Your task to perform on an android device: Open Chrome and go to settings Image 0: 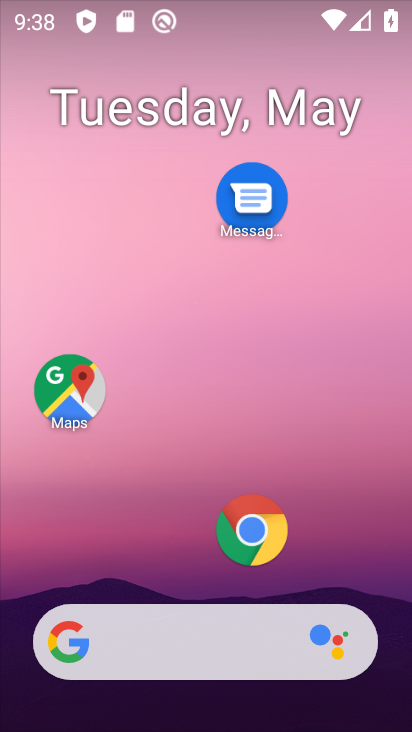
Step 0: click (252, 532)
Your task to perform on an android device: Open Chrome and go to settings Image 1: 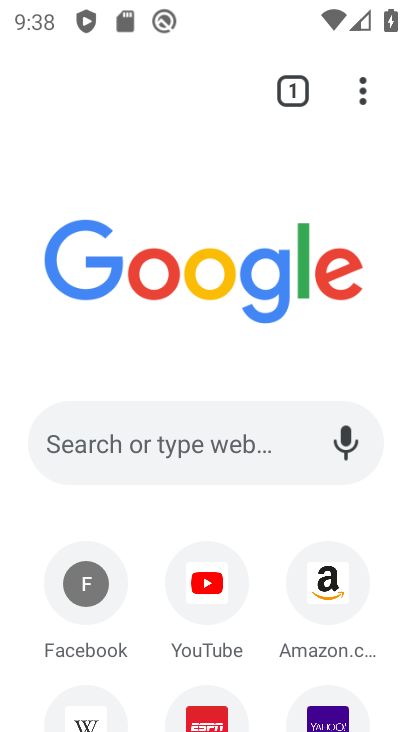
Step 1: click (359, 85)
Your task to perform on an android device: Open Chrome and go to settings Image 2: 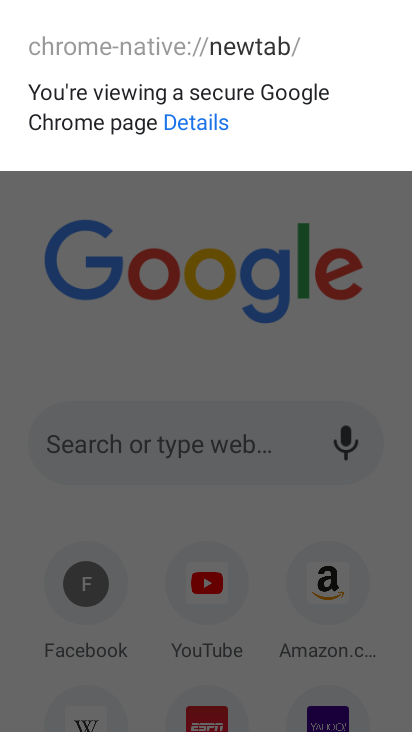
Step 2: click (332, 212)
Your task to perform on an android device: Open Chrome and go to settings Image 3: 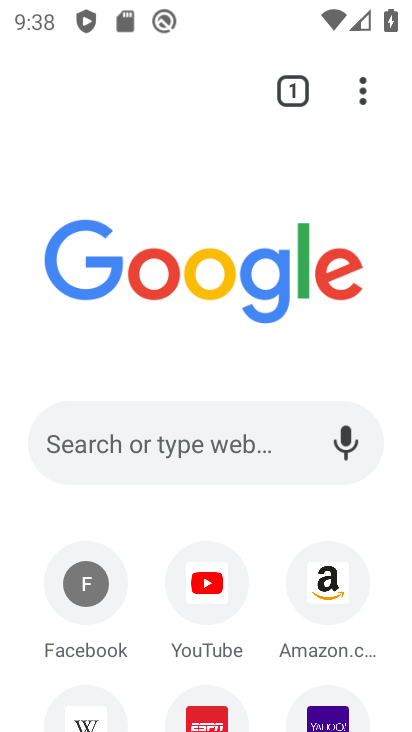
Step 3: click (356, 91)
Your task to perform on an android device: Open Chrome and go to settings Image 4: 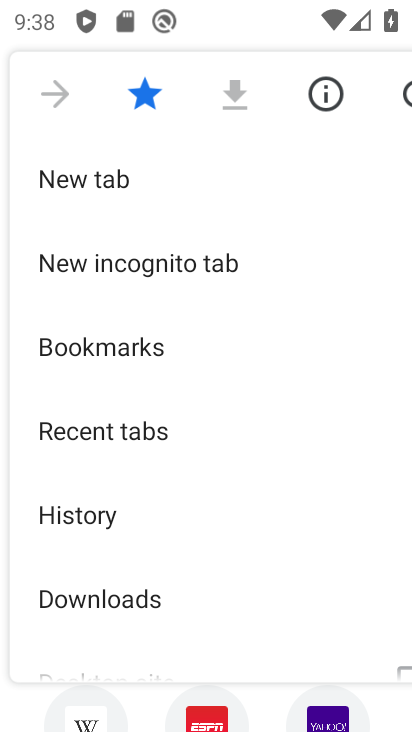
Step 4: drag from (167, 541) to (134, 213)
Your task to perform on an android device: Open Chrome and go to settings Image 5: 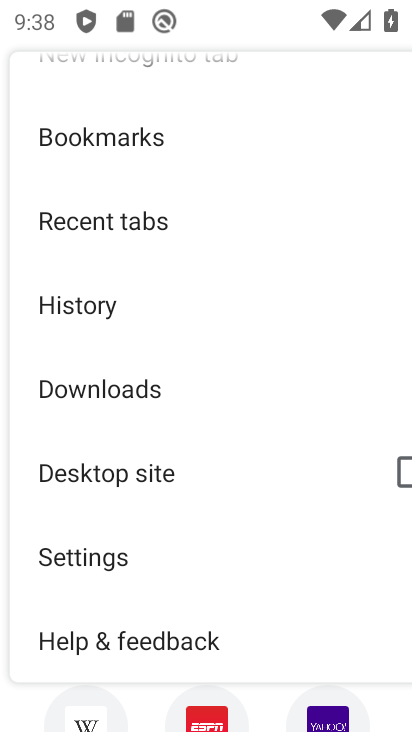
Step 5: click (124, 558)
Your task to perform on an android device: Open Chrome and go to settings Image 6: 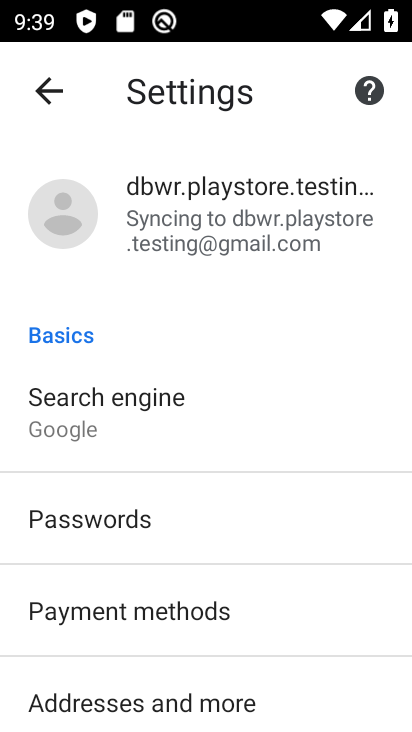
Step 6: press home button
Your task to perform on an android device: Open Chrome and go to settings Image 7: 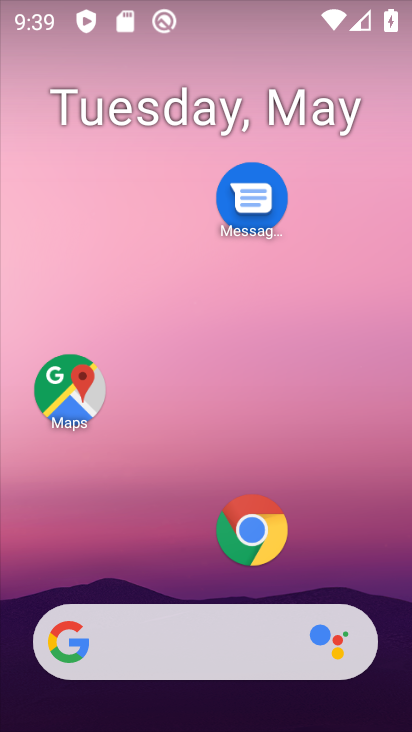
Step 7: click (253, 521)
Your task to perform on an android device: Open Chrome and go to settings Image 8: 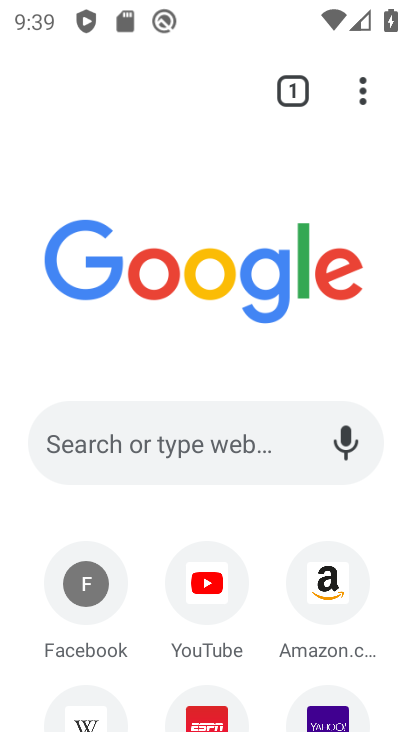
Step 8: click (365, 91)
Your task to perform on an android device: Open Chrome and go to settings Image 9: 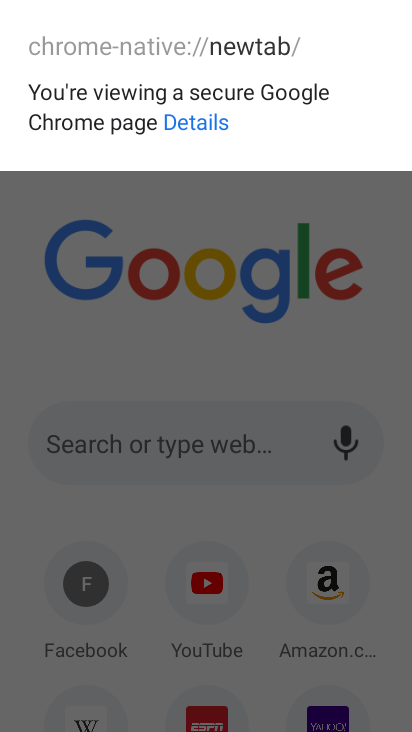
Step 9: click (254, 219)
Your task to perform on an android device: Open Chrome and go to settings Image 10: 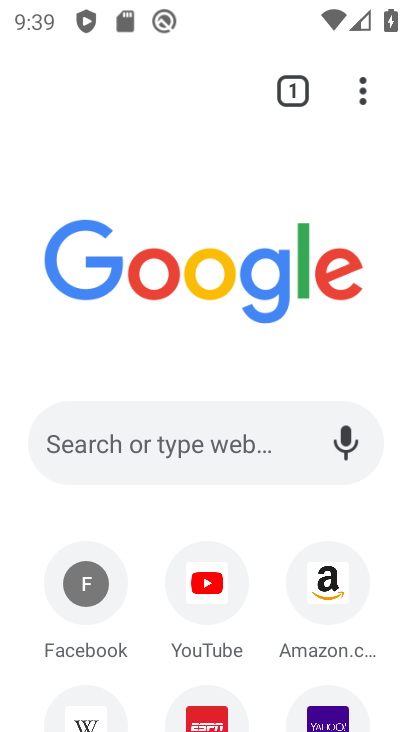
Step 10: click (366, 89)
Your task to perform on an android device: Open Chrome and go to settings Image 11: 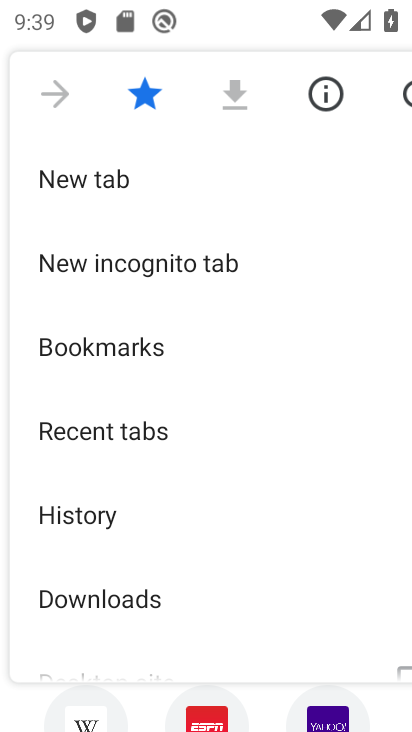
Step 11: drag from (150, 562) to (131, 231)
Your task to perform on an android device: Open Chrome and go to settings Image 12: 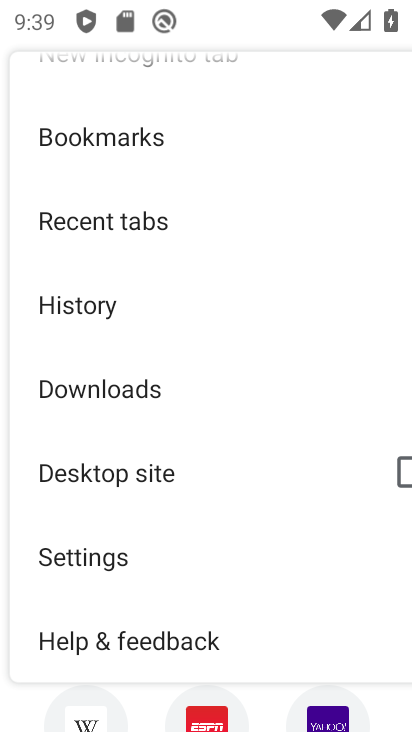
Step 12: click (105, 565)
Your task to perform on an android device: Open Chrome and go to settings Image 13: 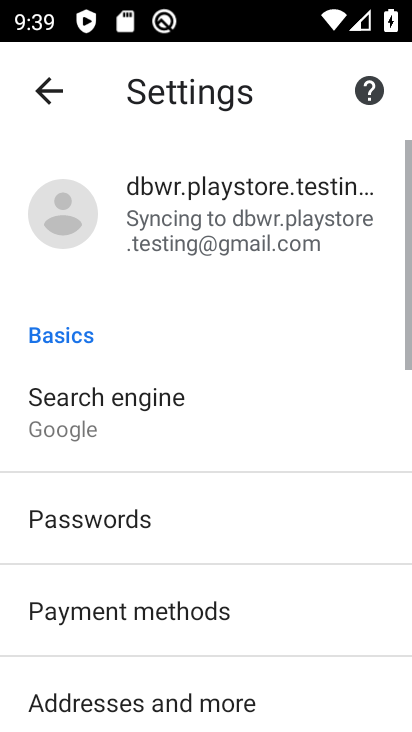
Step 13: task complete